Your task to perform on an android device: What is the speed of a skateboard? Image 0: 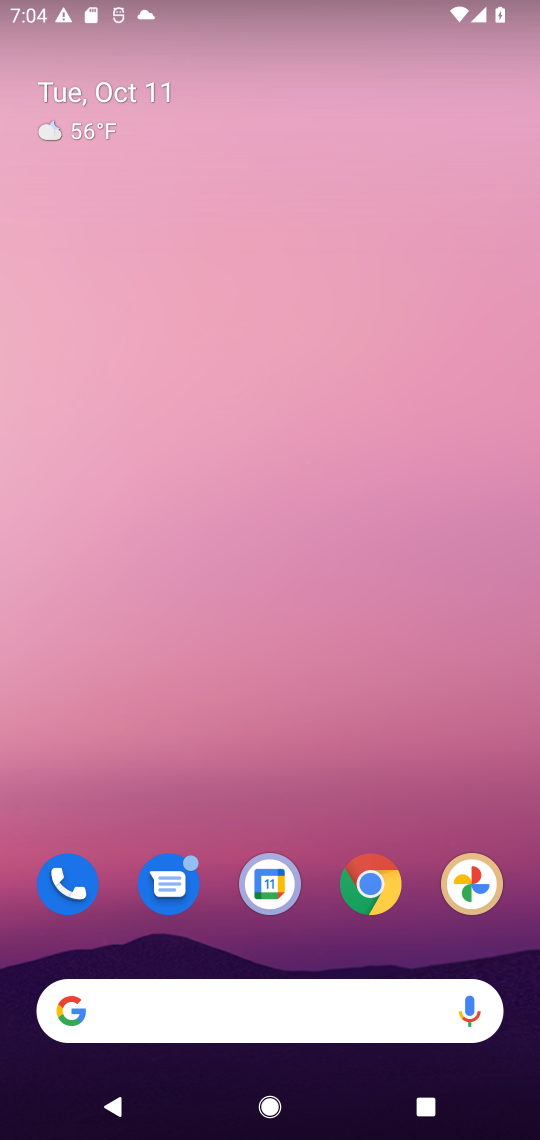
Step 0: drag from (296, 950) to (213, 8)
Your task to perform on an android device: What is the speed of a skateboard? Image 1: 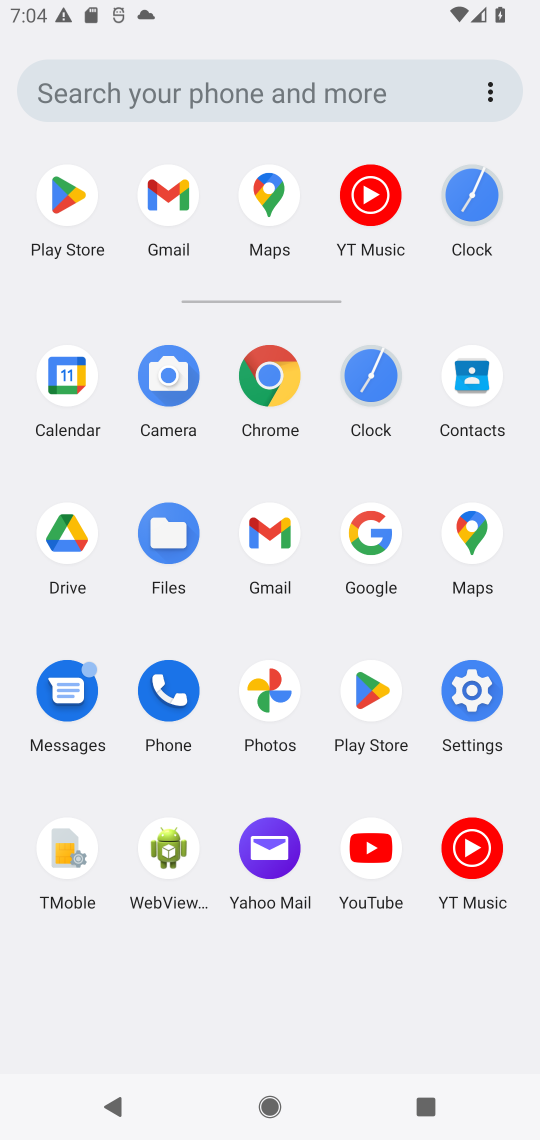
Step 1: task complete